Your task to perform on an android device: What's on my calendar today? Image 0: 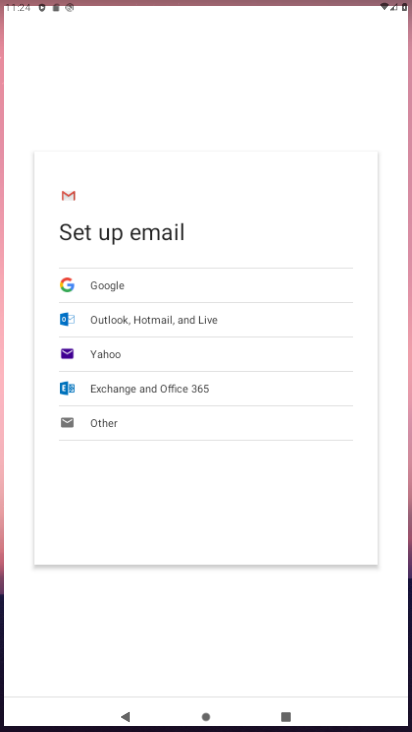
Step 0: drag from (378, 654) to (360, 104)
Your task to perform on an android device: What's on my calendar today? Image 1: 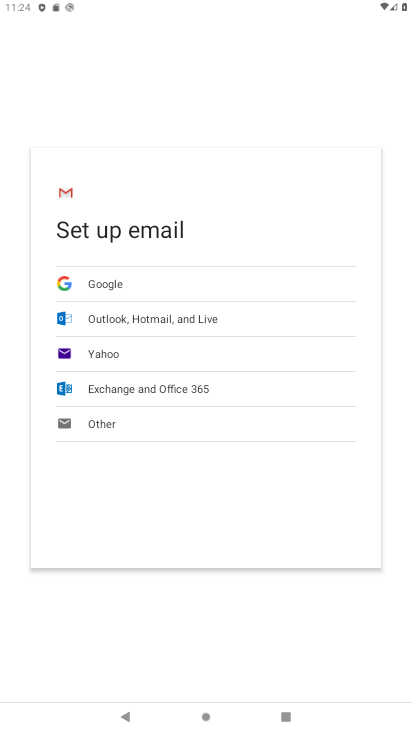
Step 1: press home button
Your task to perform on an android device: What's on my calendar today? Image 2: 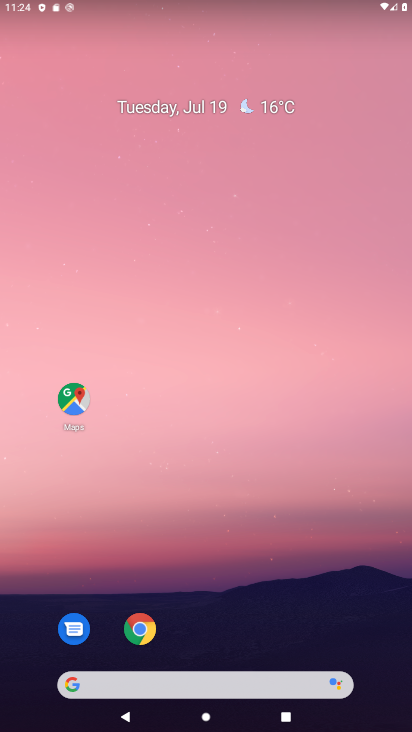
Step 2: drag from (384, 688) to (362, 219)
Your task to perform on an android device: What's on my calendar today? Image 3: 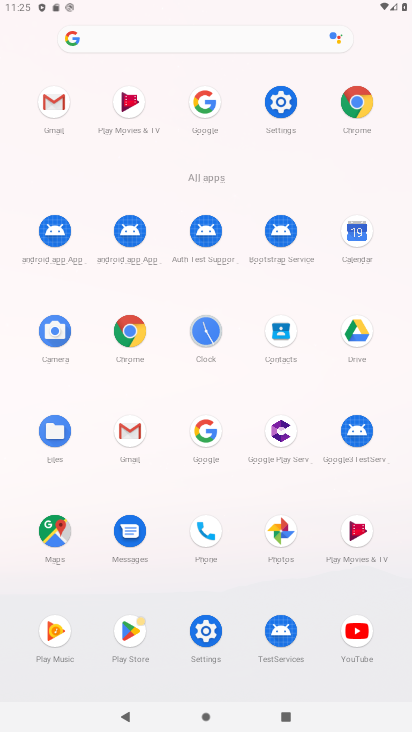
Step 3: click (357, 229)
Your task to perform on an android device: What's on my calendar today? Image 4: 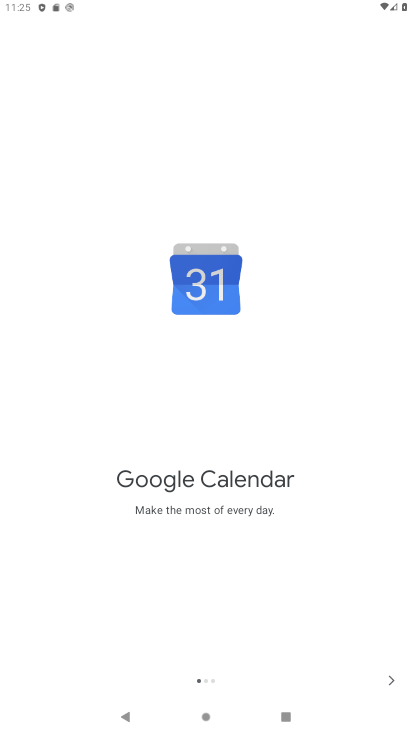
Step 4: click (387, 675)
Your task to perform on an android device: What's on my calendar today? Image 5: 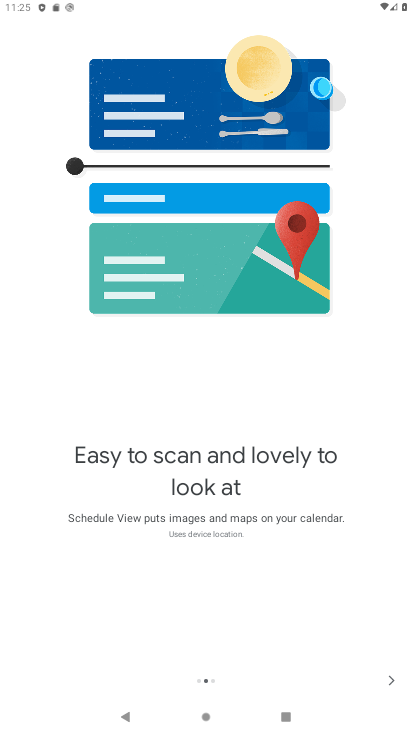
Step 5: click (387, 675)
Your task to perform on an android device: What's on my calendar today? Image 6: 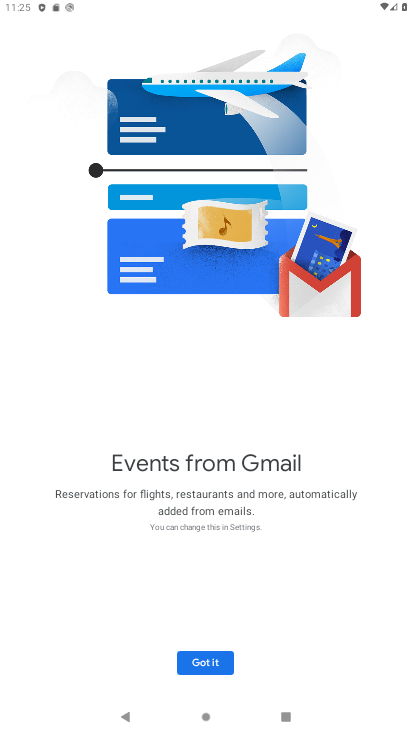
Step 6: click (387, 675)
Your task to perform on an android device: What's on my calendar today? Image 7: 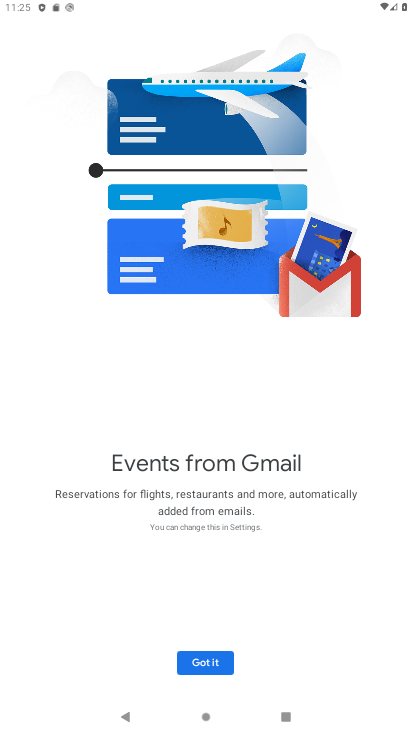
Step 7: click (199, 664)
Your task to perform on an android device: What's on my calendar today? Image 8: 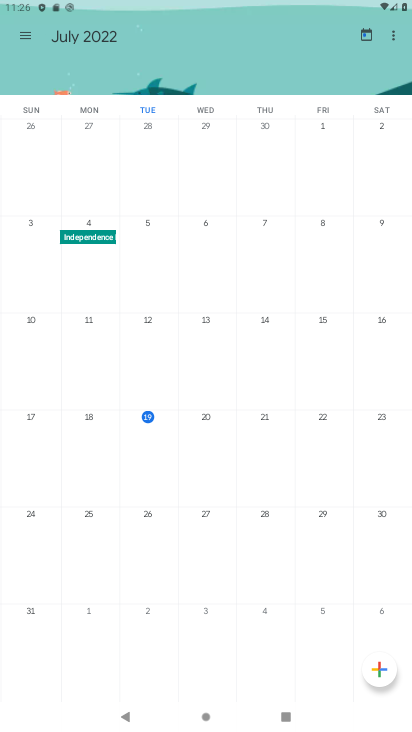
Step 8: click (18, 31)
Your task to perform on an android device: What's on my calendar today? Image 9: 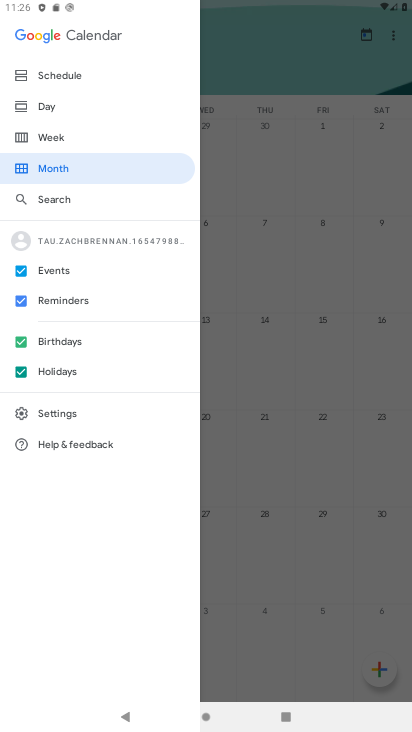
Step 9: click (266, 53)
Your task to perform on an android device: What's on my calendar today? Image 10: 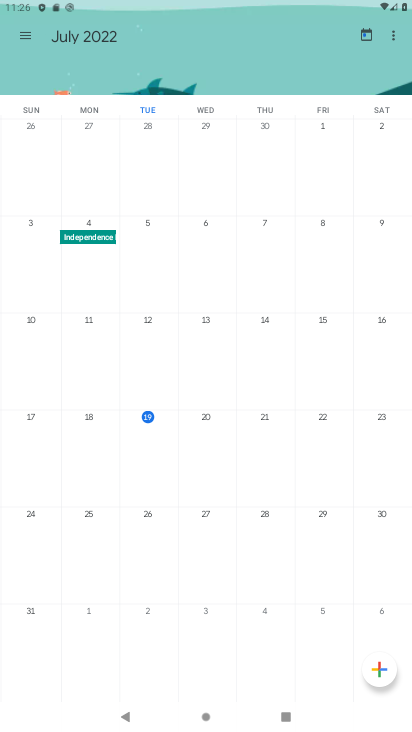
Step 10: click (59, 104)
Your task to perform on an android device: What's on my calendar today? Image 11: 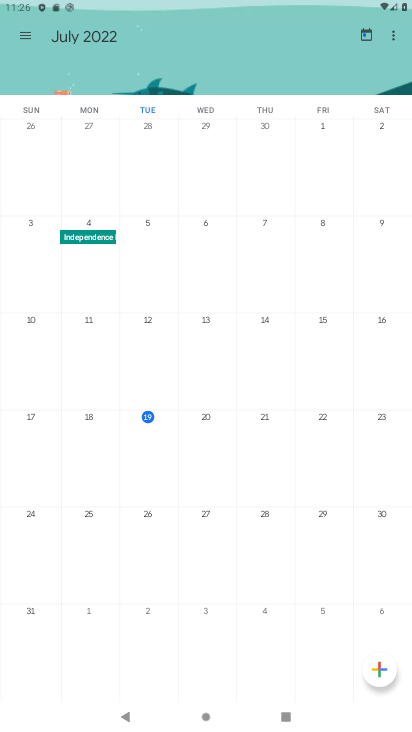
Step 11: click (23, 36)
Your task to perform on an android device: What's on my calendar today? Image 12: 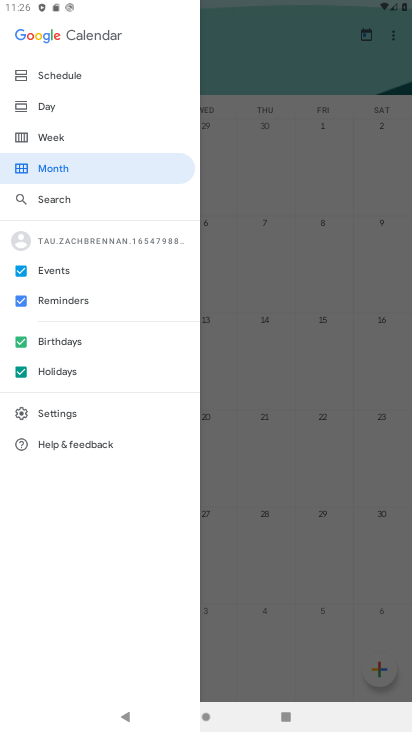
Step 12: click (43, 105)
Your task to perform on an android device: What's on my calendar today? Image 13: 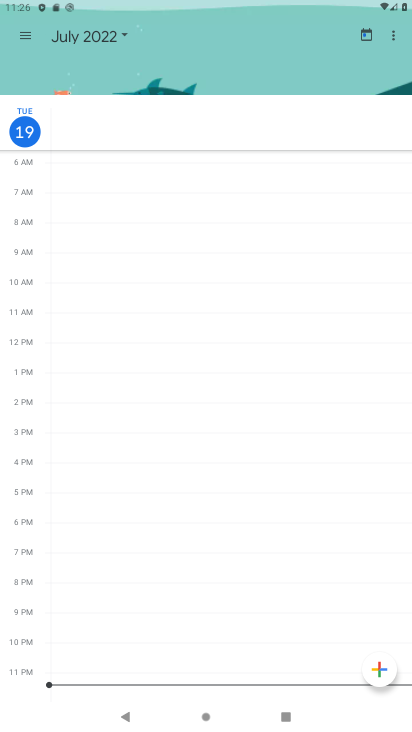
Step 13: click (25, 35)
Your task to perform on an android device: What's on my calendar today? Image 14: 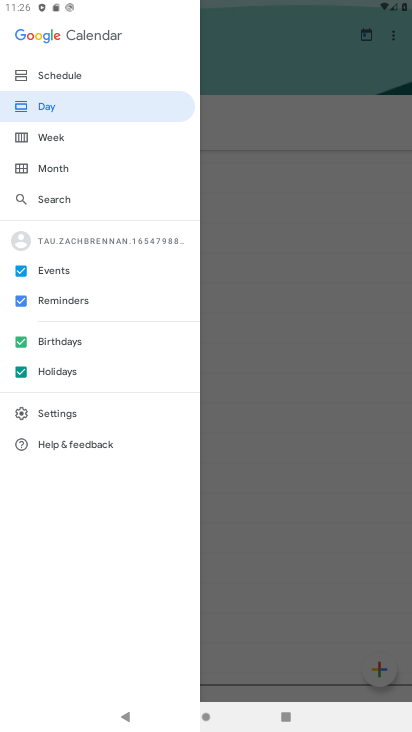
Step 14: click (52, 79)
Your task to perform on an android device: What's on my calendar today? Image 15: 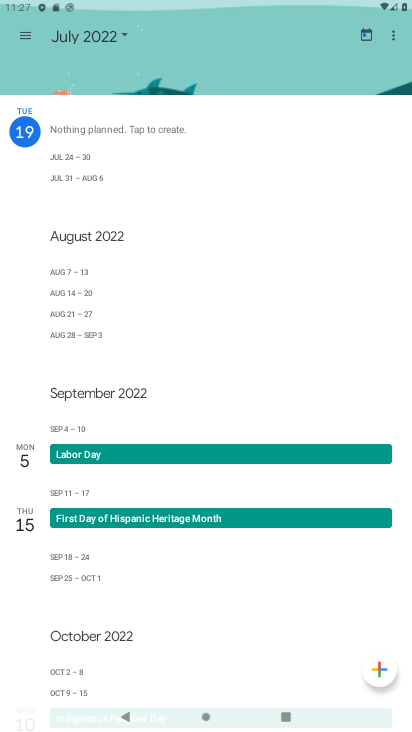
Step 15: task complete